Your task to perform on an android device: Open Google Chrome Image 0: 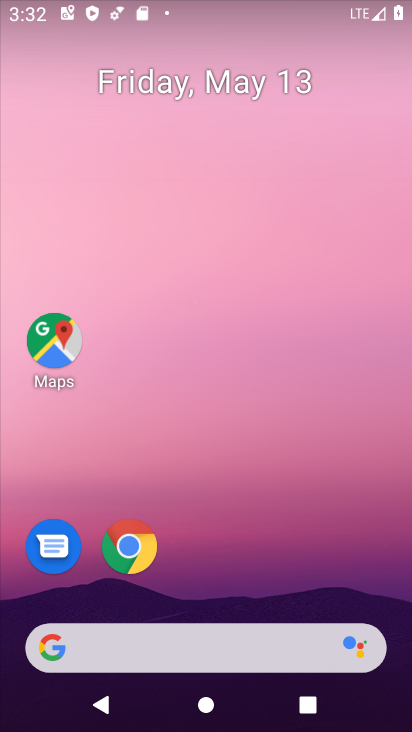
Step 0: click (132, 536)
Your task to perform on an android device: Open Google Chrome Image 1: 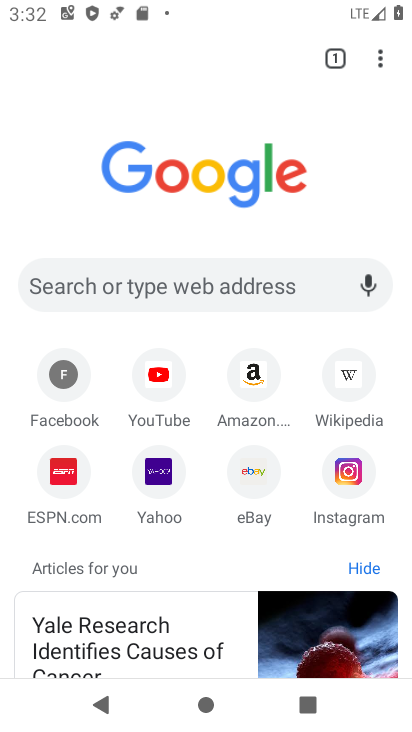
Step 1: task complete